Your task to perform on an android device: What is the news today? Image 0: 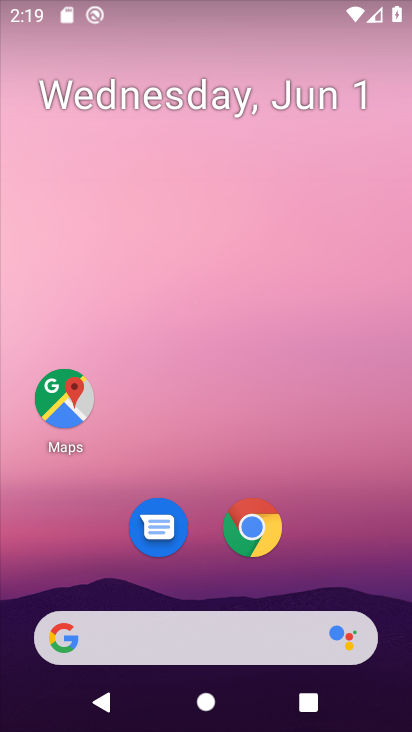
Step 0: click (204, 635)
Your task to perform on an android device: What is the news today? Image 1: 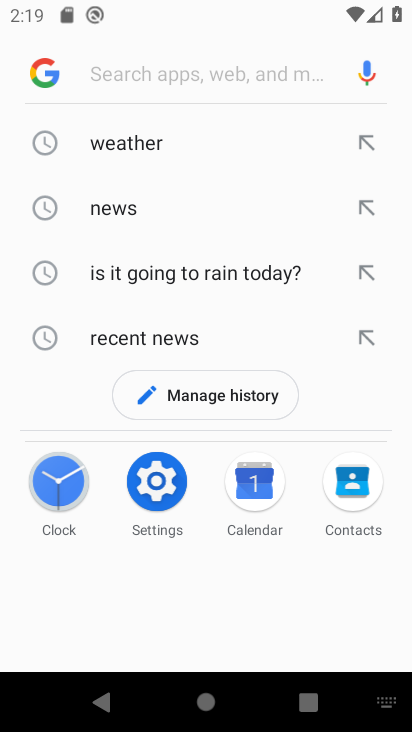
Step 1: type "news today ?"
Your task to perform on an android device: What is the news today? Image 2: 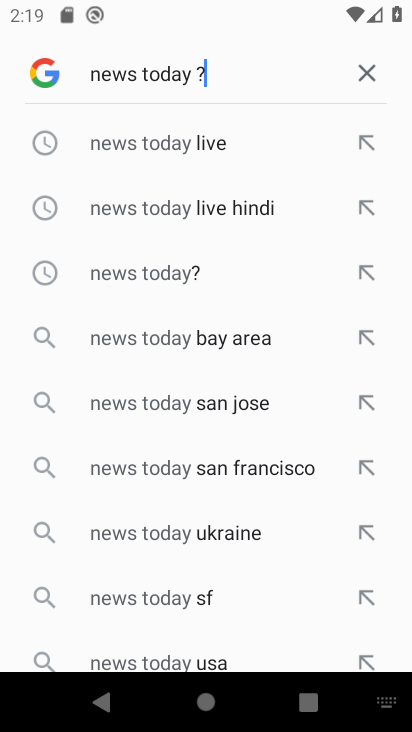
Step 2: click (189, 278)
Your task to perform on an android device: What is the news today? Image 3: 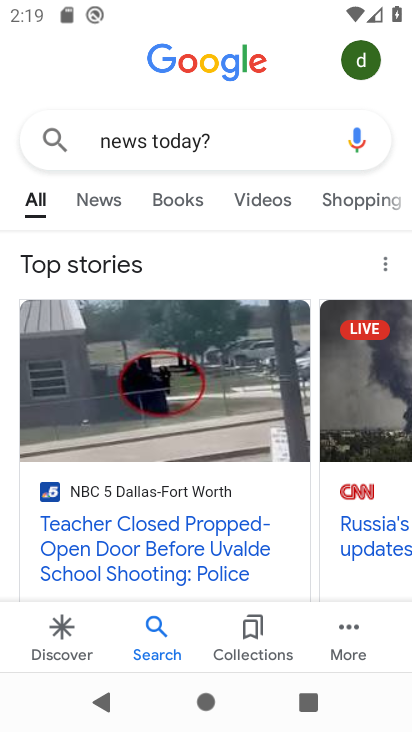
Step 3: task complete